Your task to perform on an android device: Set an alarm for 7pm Image 0: 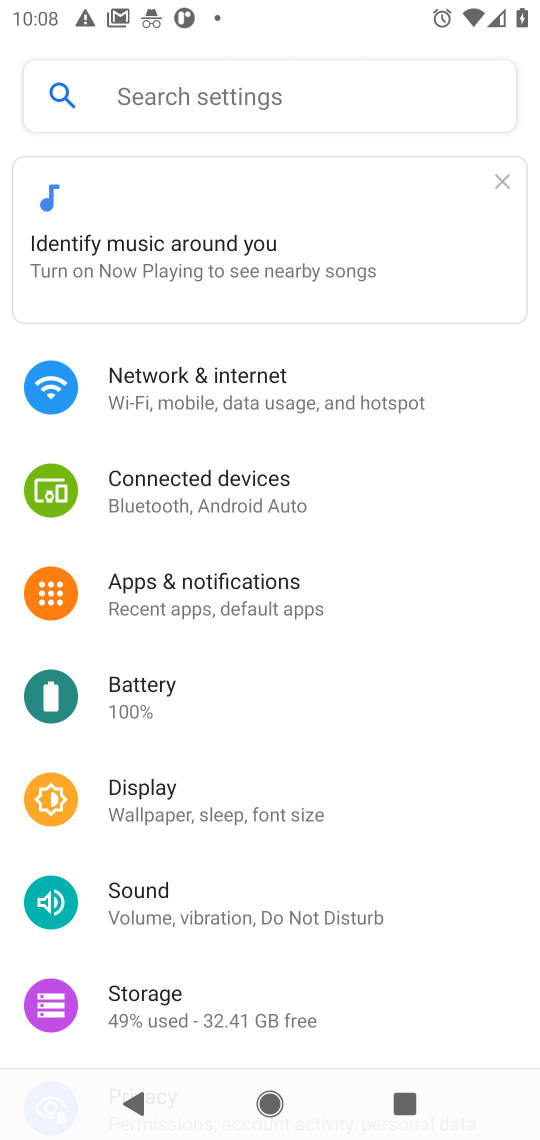
Step 0: press home button
Your task to perform on an android device: Set an alarm for 7pm Image 1: 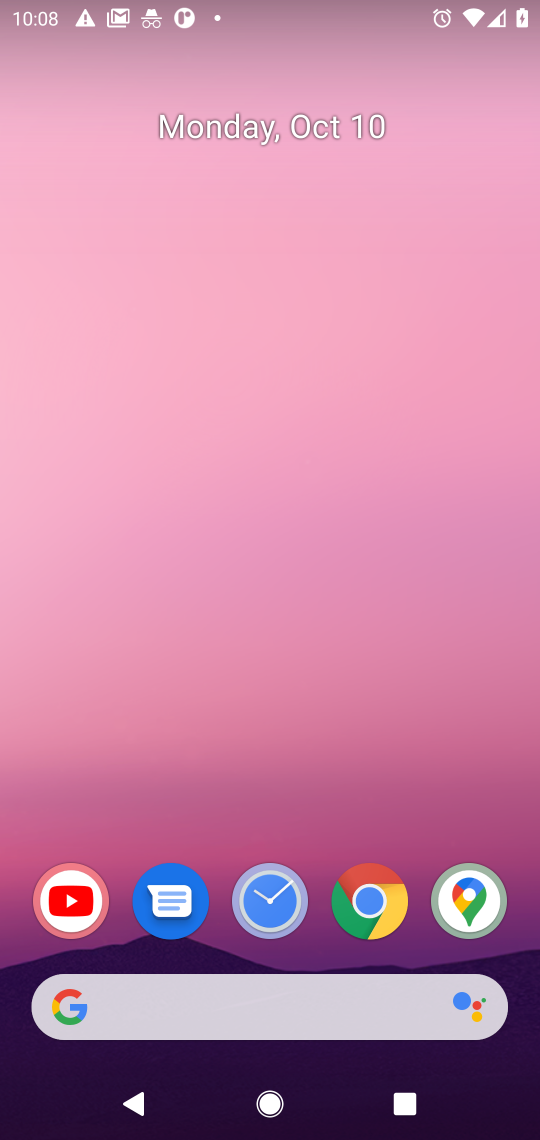
Step 1: drag from (434, 789) to (437, 115)
Your task to perform on an android device: Set an alarm for 7pm Image 2: 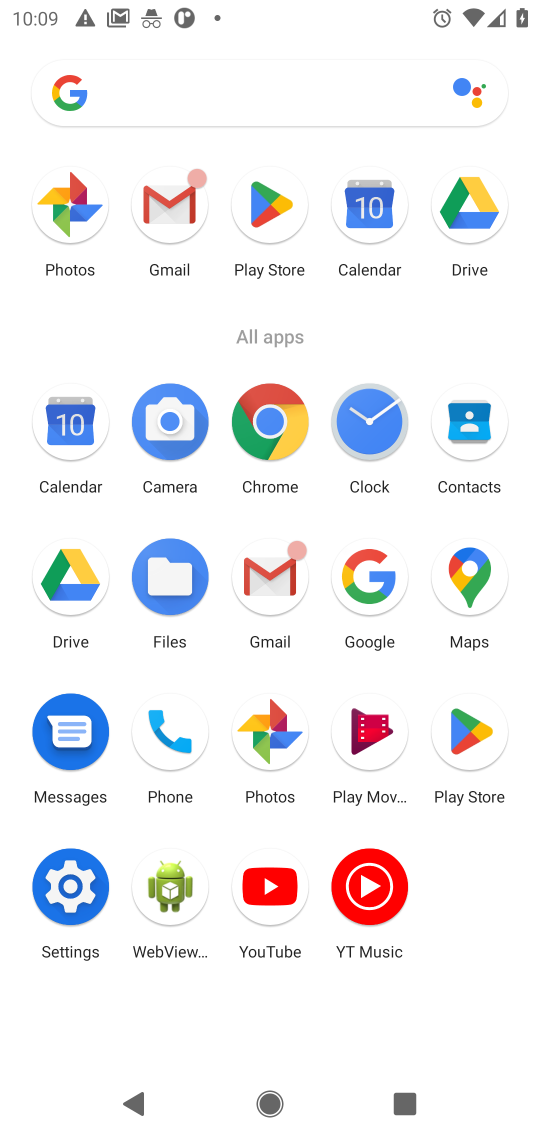
Step 2: click (380, 443)
Your task to perform on an android device: Set an alarm for 7pm Image 3: 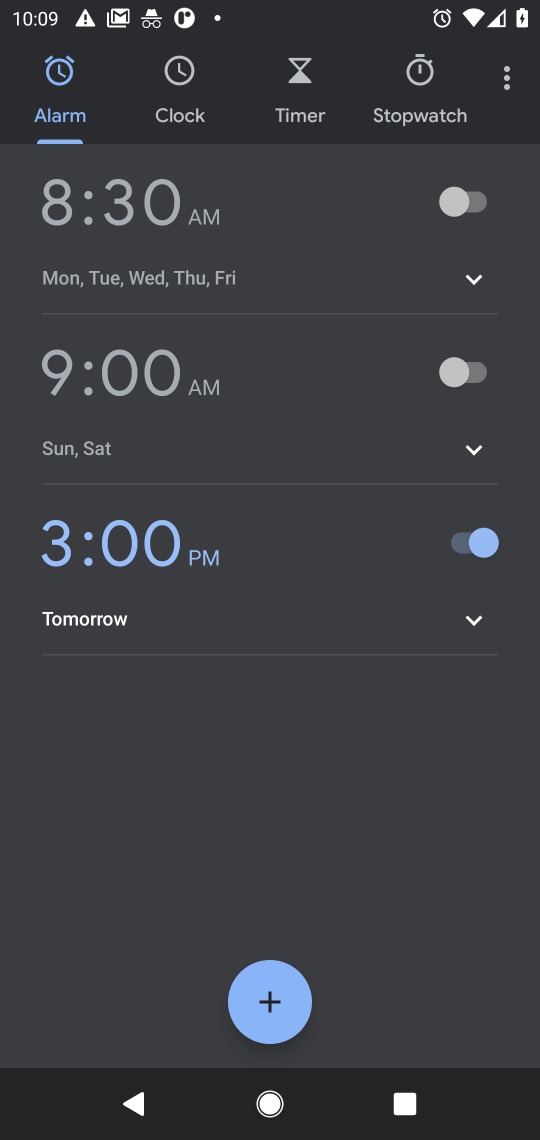
Step 3: click (278, 999)
Your task to perform on an android device: Set an alarm for 7pm Image 4: 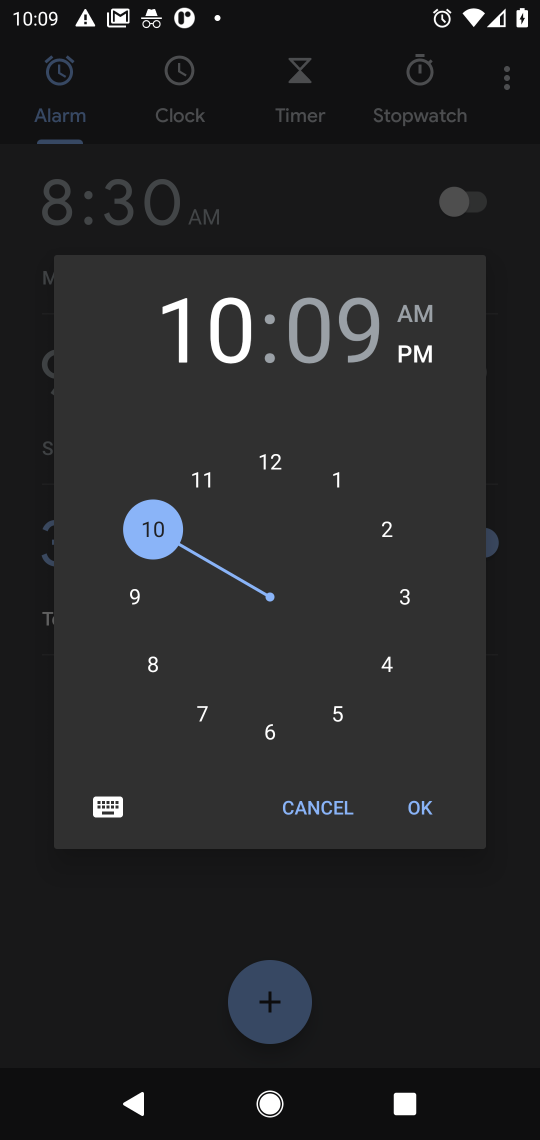
Step 4: click (206, 709)
Your task to perform on an android device: Set an alarm for 7pm Image 5: 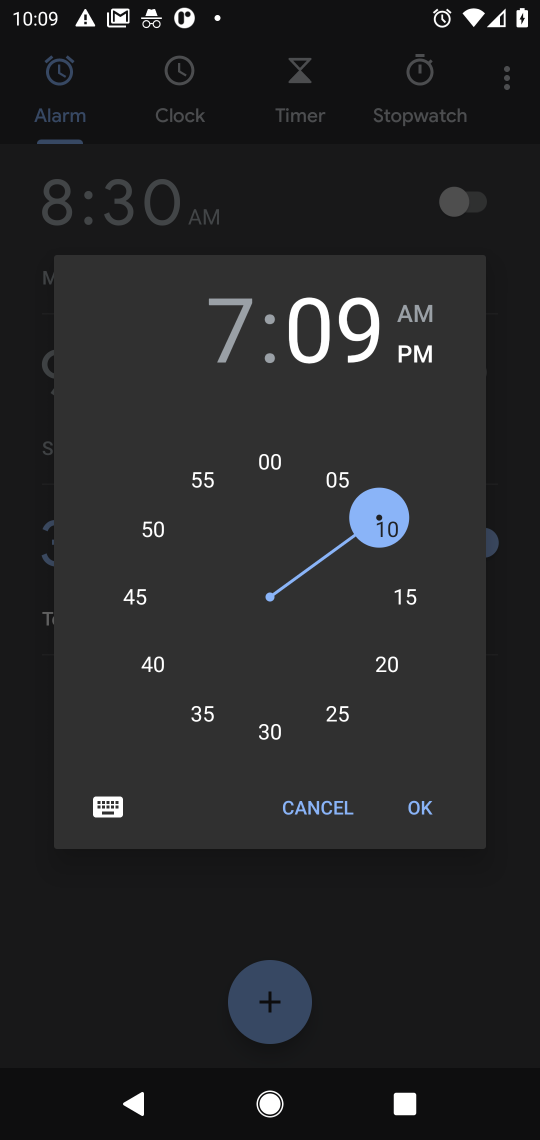
Step 5: click (271, 471)
Your task to perform on an android device: Set an alarm for 7pm Image 6: 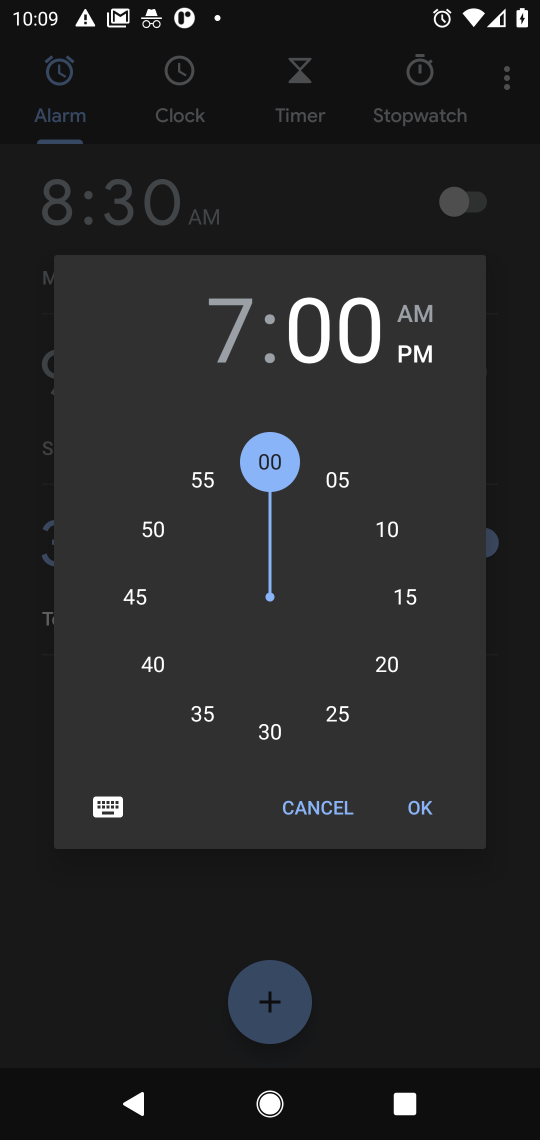
Step 6: click (427, 802)
Your task to perform on an android device: Set an alarm for 7pm Image 7: 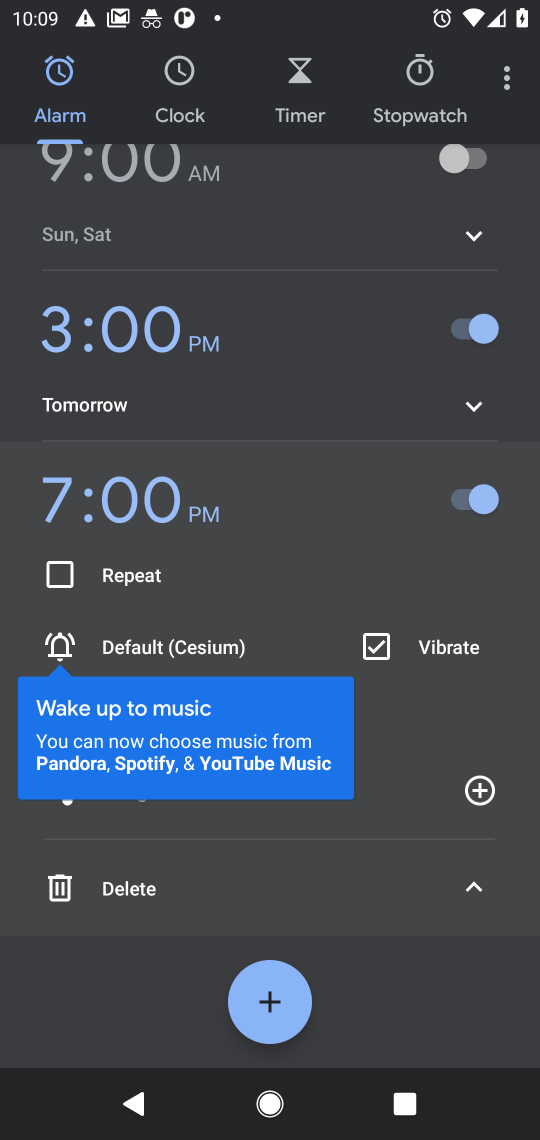
Step 7: task complete